Your task to perform on an android device: Open the calendar and show me this week's events? Image 0: 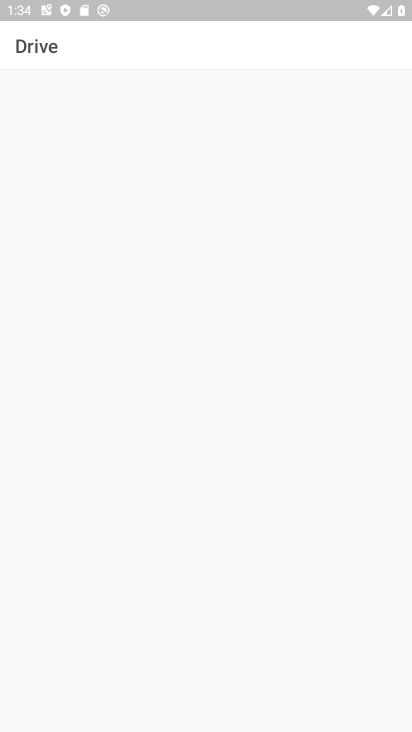
Step 0: press home button
Your task to perform on an android device: Open the calendar and show me this week's events? Image 1: 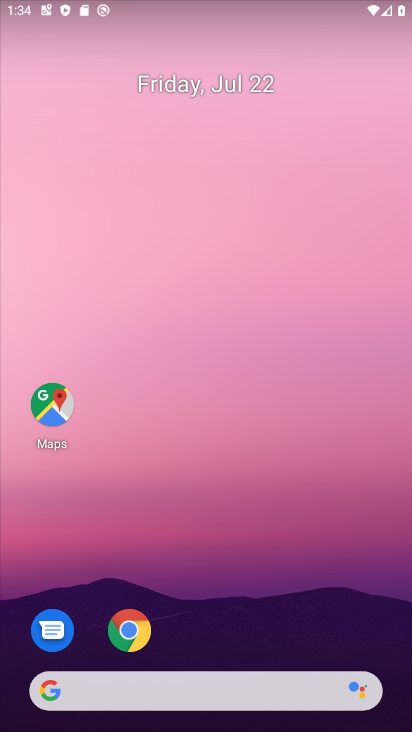
Step 1: drag from (177, 631) to (148, 172)
Your task to perform on an android device: Open the calendar and show me this week's events? Image 2: 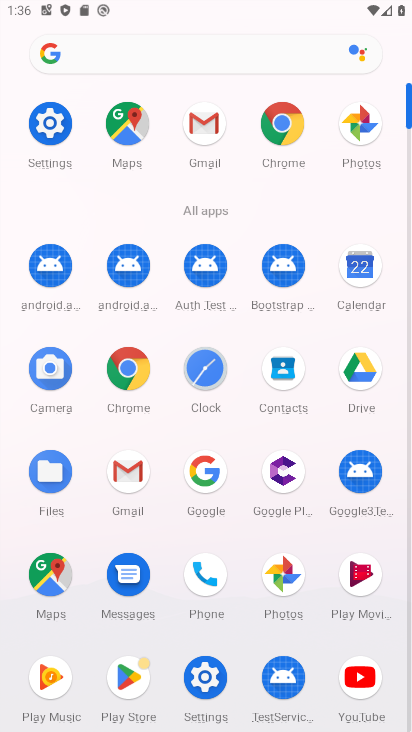
Step 2: click (362, 283)
Your task to perform on an android device: Open the calendar and show me this week's events? Image 3: 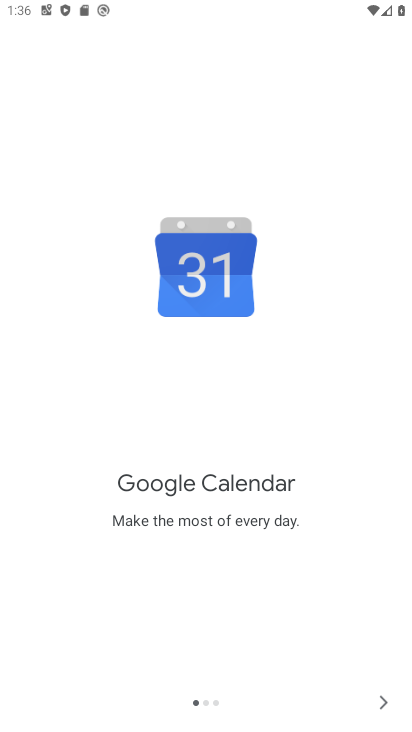
Step 3: click (384, 703)
Your task to perform on an android device: Open the calendar and show me this week's events? Image 4: 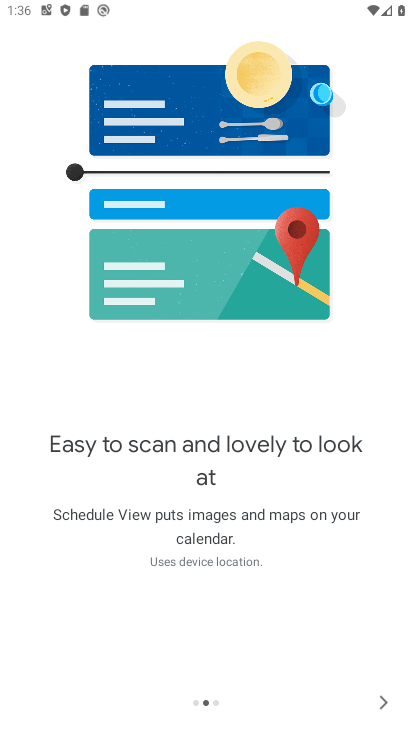
Step 4: click (384, 703)
Your task to perform on an android device: Open the calendar and show me this week's events? Image 5: 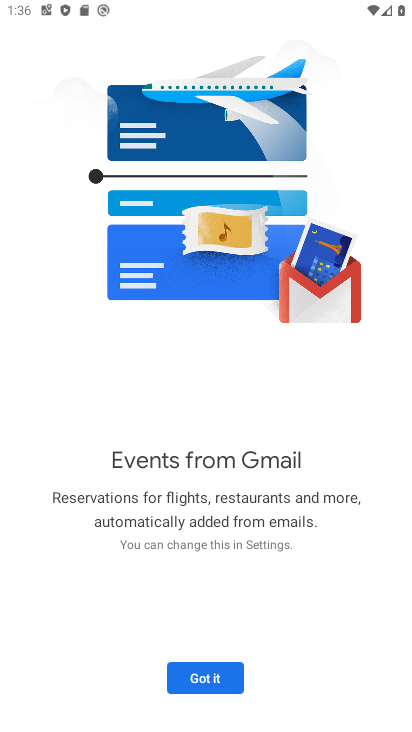
Step 5: click (194, 673)
Your task to perform on an android device: Open the calendar and show me this week's events? Image 6: 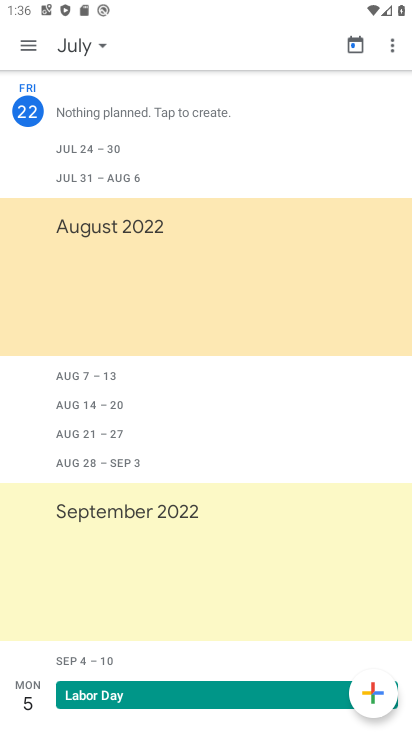
Step 6: click (75, 43)
Your task to perform on an android device: Open the calendar and show me this week's events? Image 7: 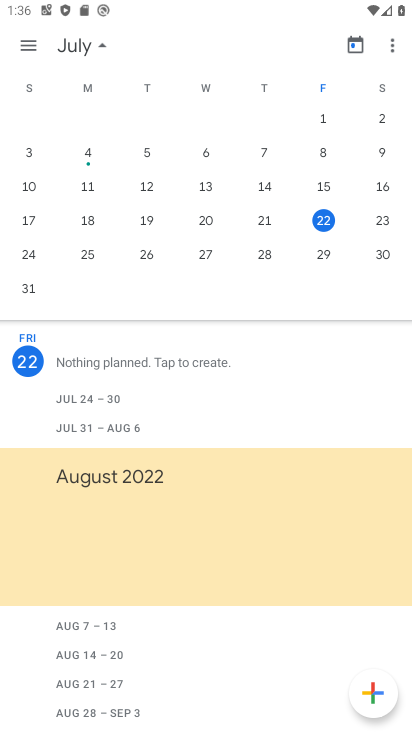
Step 7: click (33, 45)
Your task to perform on an android device: Open the calendar and show me this week's events? Image 8: 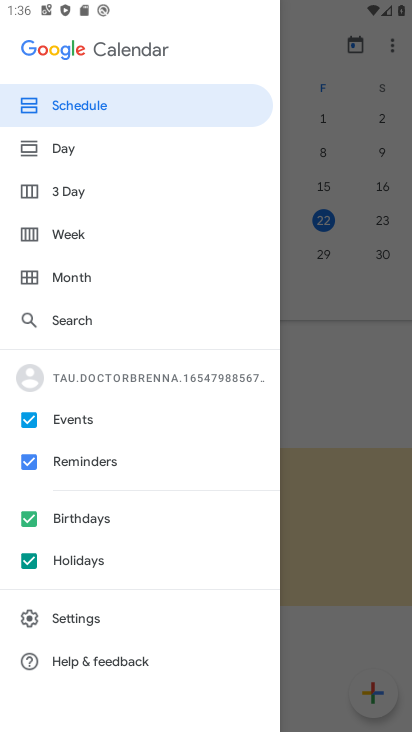
Step 8: click (65, 231)
Your task to perform on an android device: Open the calendar and show me this week's events? Image 9: 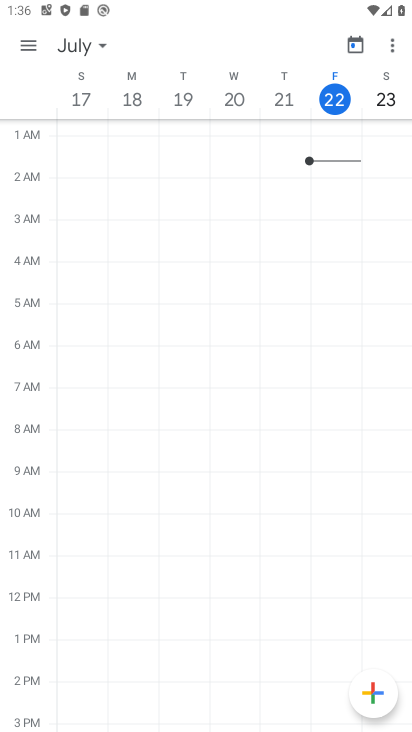
Step 9: task complete